Your task to perform on an android device: What's on my calendar today? Image 0: 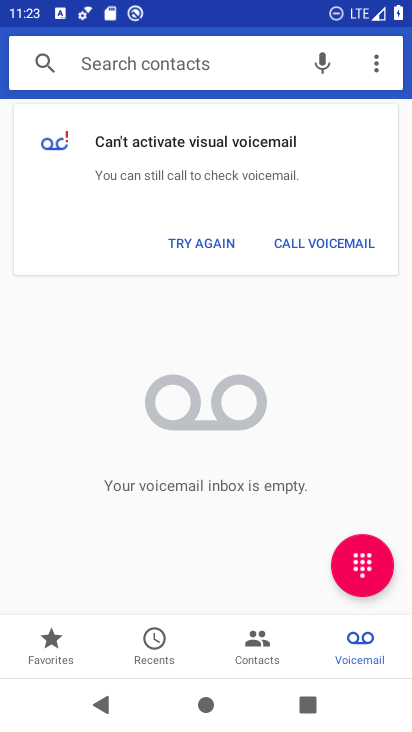
Step 0: press home button
Your task to perform on an android device: What's on my calendar today? Image 1: 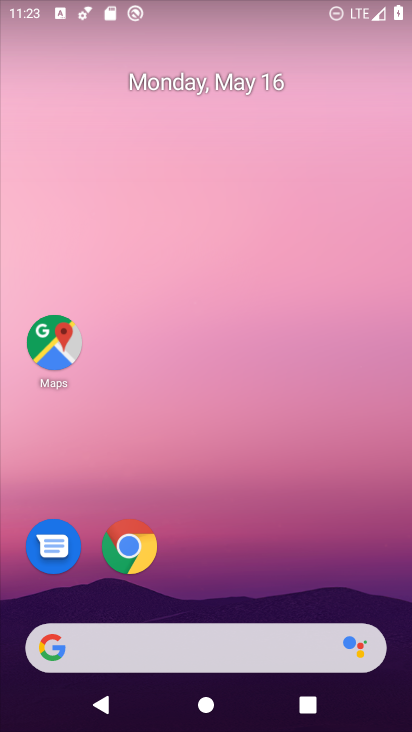
Step 1: click (238, 86)
Your task to perform on an android device: What's on my calendar today? Image 2: 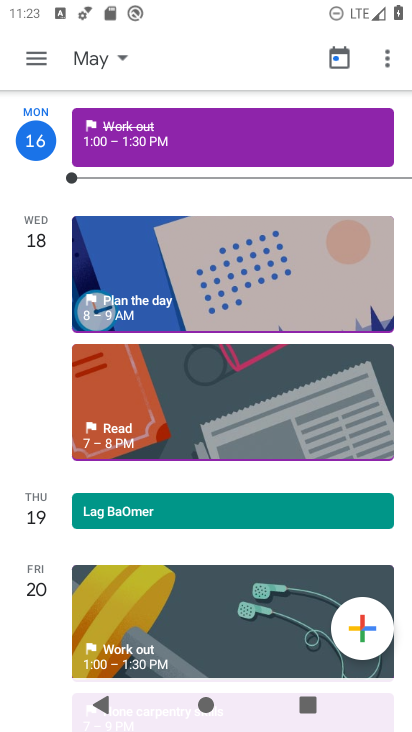
Step 2: task complete